Your task to perform on an android device: Open Google Chrome and click the shortcut for Amazon.com Image 0: 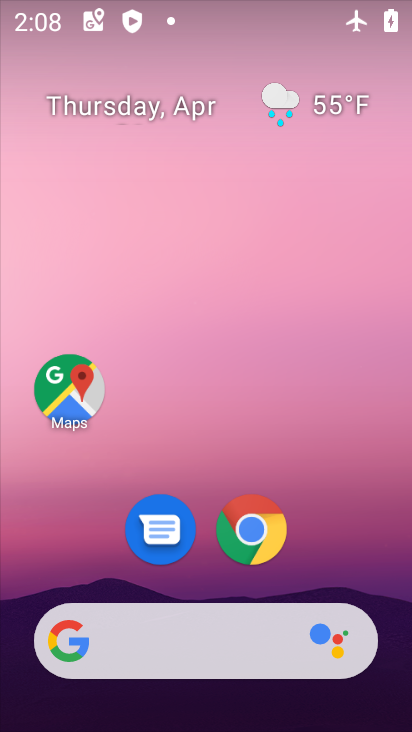
Step 0: drag from (213, 531) to (210, 250)
Your task to perform on an android device: Open Google Chrome and click the shortcut for Amazon.com Image 1: 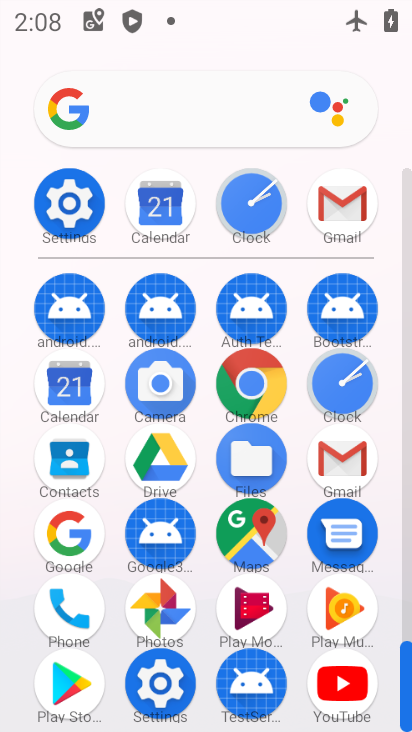
Step 1: drag from (215, 572) to (175, 345)
Your task to perform on an android device: Open Google Chrome and click the shortcut for Amazon.com Image 2: 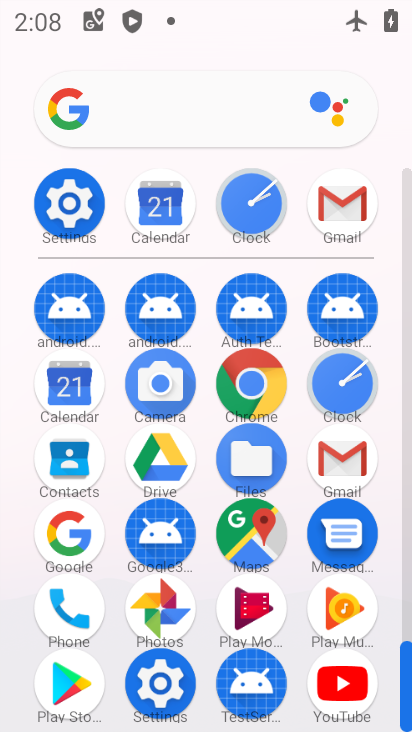
Step 2: click (262, 388)
Your task to perform on an android device: Open Google Chrome and click the shortcut for Amazon.com Image 3: 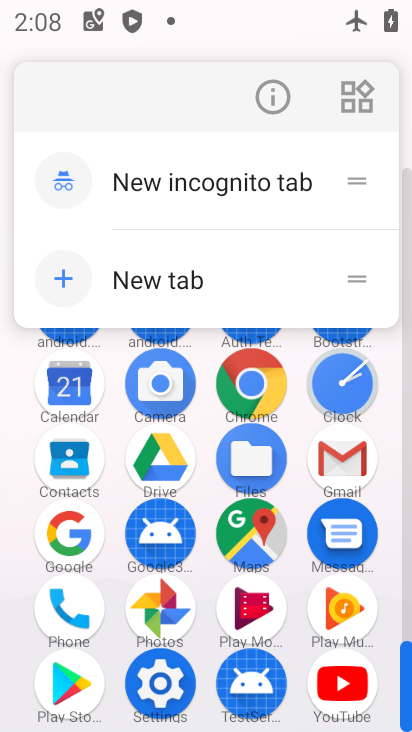
Step 3: click (270, 109)
Your task to perform on an android device: Open Google Chrome and click the shortcut for Amazon.com Image 4: 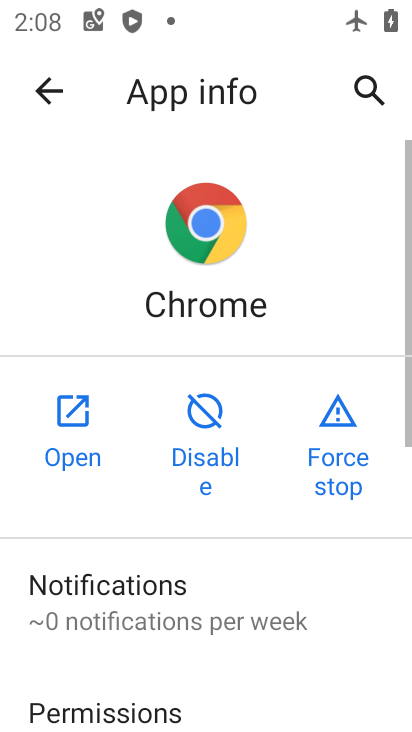
Step 4: click (92, 441)
Your task to perform on an android device: Open Google Chrome and click the shortcut for Amazon.com Image 5: 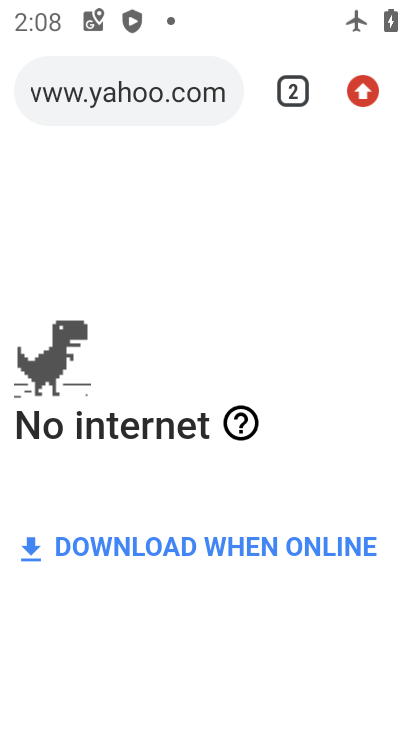
Step 5: click (301, 87)
Your task to perform on an android device: Open Google Chrome and click the shortcut for Amazon.com Image 6: 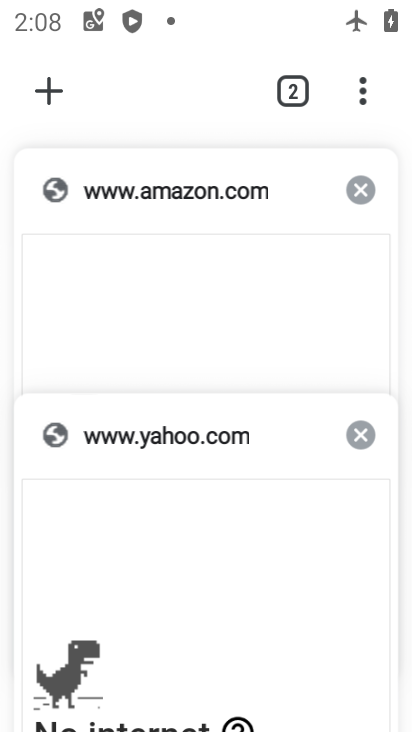
Step 6: click (52, 123)
Your task to perform on an android device: Open Google Chrome and click the shortcut for Amazon.com Image 7: 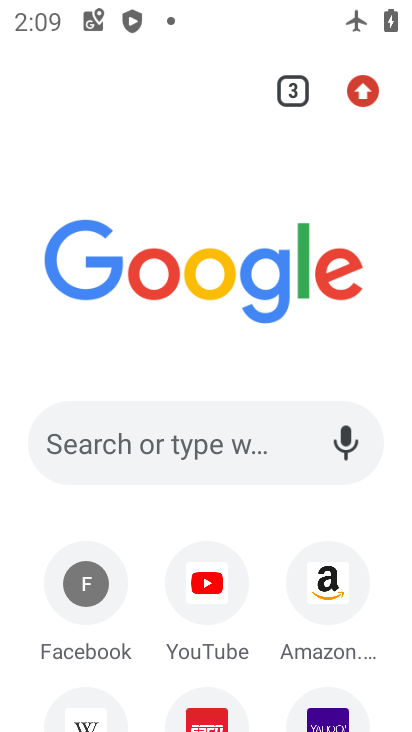
Step 7: click (335, 609)
Your task to perform on an android device: Open Google Chrome and click the shortcut for Amazon.com Image 8: 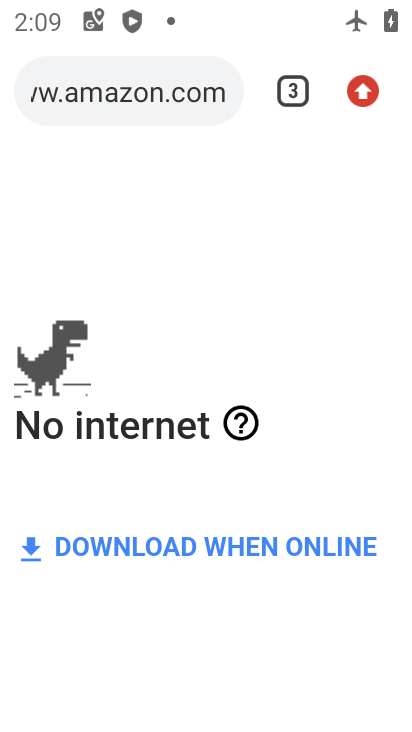
Step 8: task complete